Your task to perform on an android device: Open Yahoo.com Image 0: 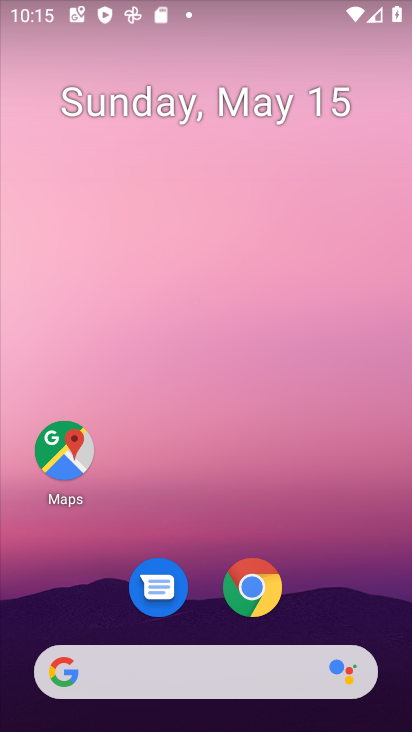
Step 0: drag from (380, 588) to (285, 107)
Your task to perform on an android device: Open Yahoo.com Image 1: 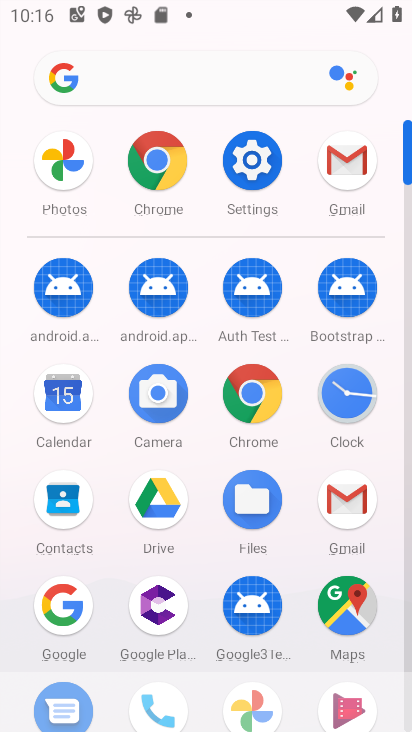
Step 1: click (250, 402)
Your task to perform on an android device: Open Yahoo.com Image 2: 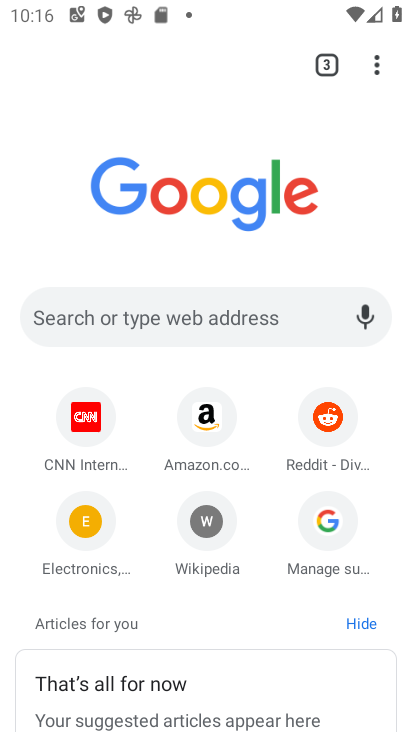
Step 2: click (175, 332)
Your task to perform on an android device: Open Yahoo.com Image 3: 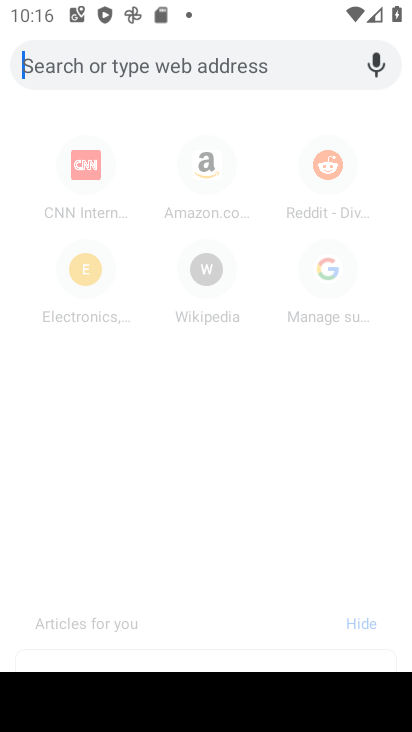
Step 3: type "yahoo.com"
Your task to perform on an android device: Open Yahoo.com Image 4: 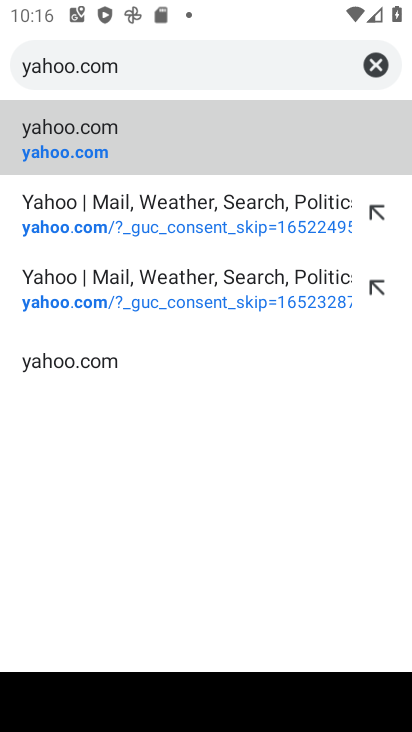
Step 4: click (182, 153)
Your task to perform on an android device: Open Yahoo.com Image 5: 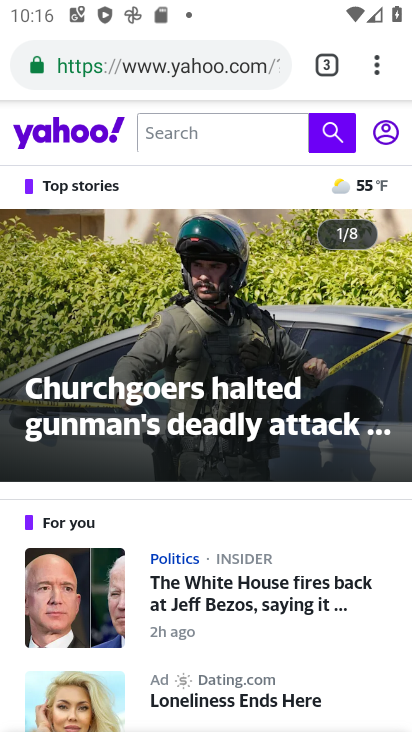
Step 5: task complete